Your task to perform on an android device: What's on my calendar tomorrow? Image 0: 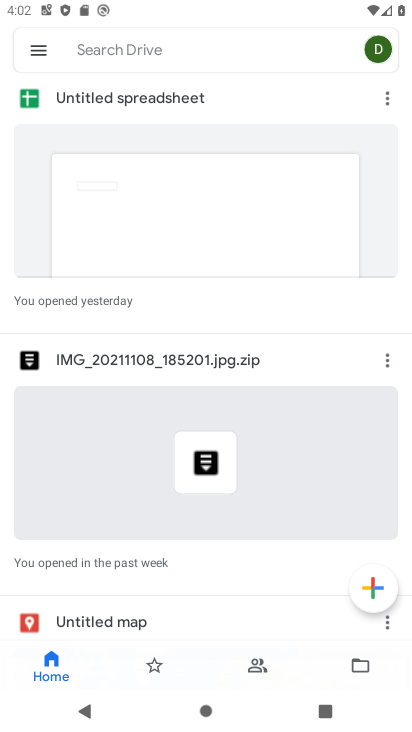
Step 0: press home button
Your task to perform on an android device: What's on my calendar tomorrow? Image 1: 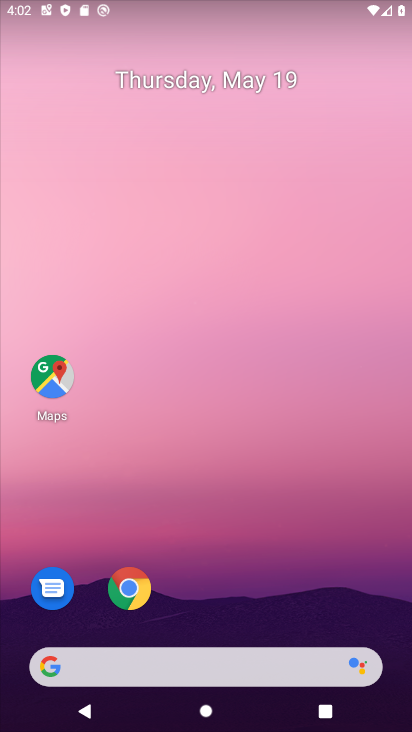
Step 1: click (195, 79)
Your task to perform on an android device: What's on my calendar tomorrow? Image 2: 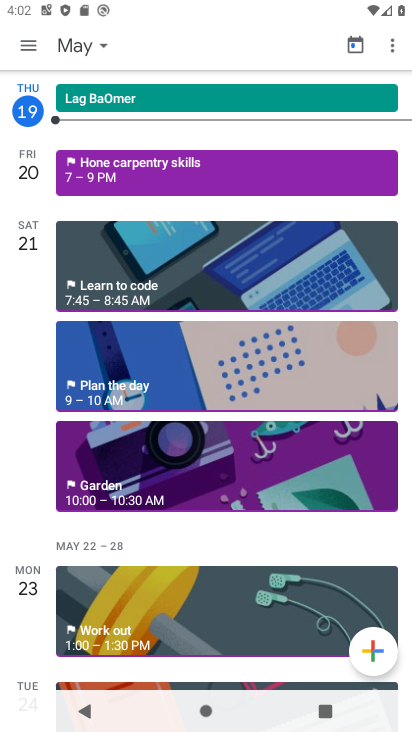
Step 2: click (82, 54)
Your task to perform on an android device: What's on my calendar tomorrow? Image 3: 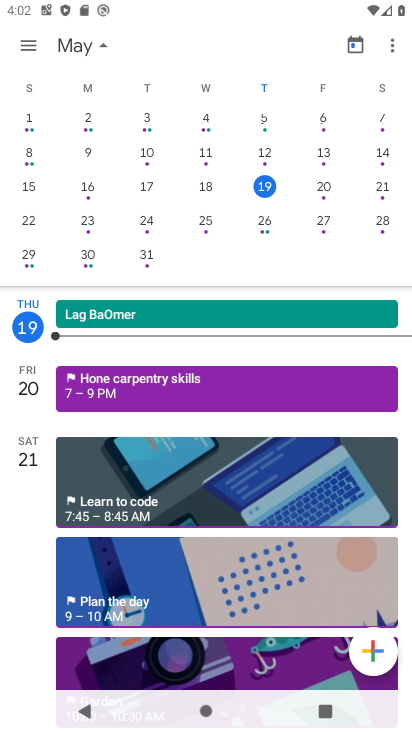
Step 3: click (325, 194)
Your task to perform on an android device: What's on my calendar tomorrow? Image 4: 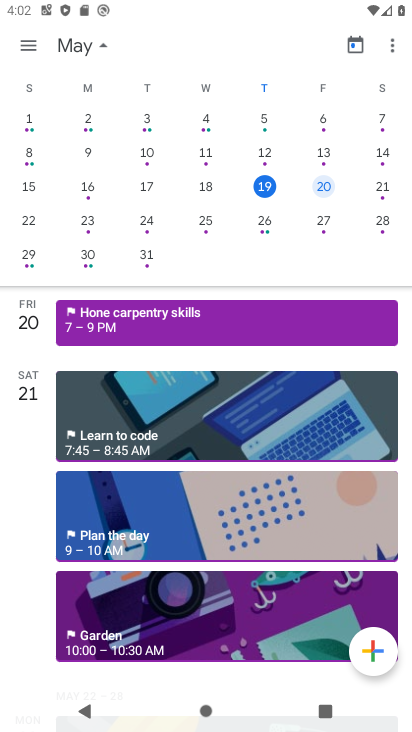
Step 4: task complete